Your task to perform on an android device: Search for vegetarian restaurants on Maps Image 0: 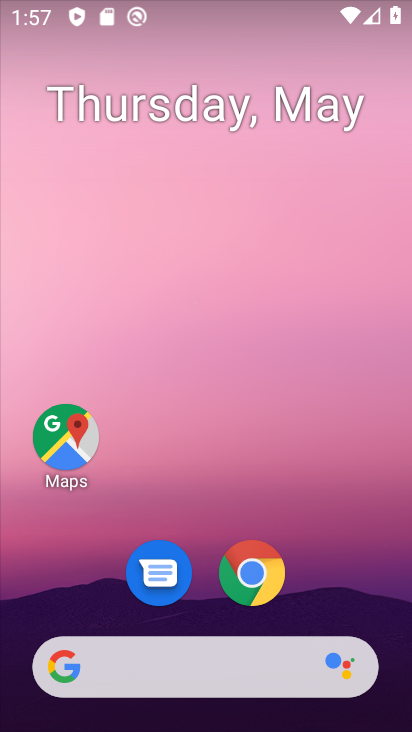
Step 0: click (63, 406)
Your task to perform on an android device: Search for vegetarian restaurants on Maps Image 1: 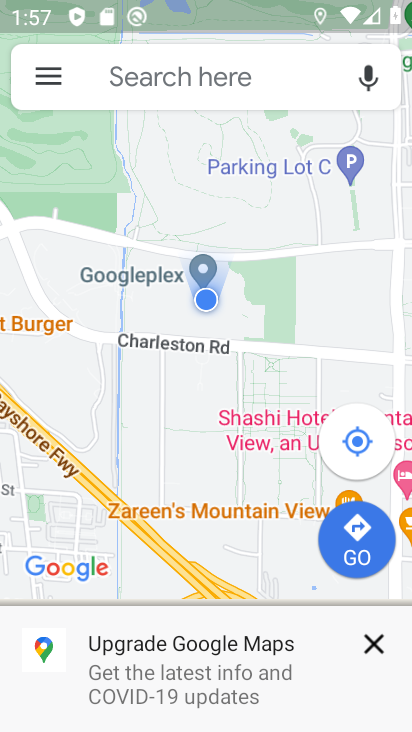
Step 1: click (157, 62)
Your task to perform on an android device: Search for vegetarian restaurants on Maps Image 2: 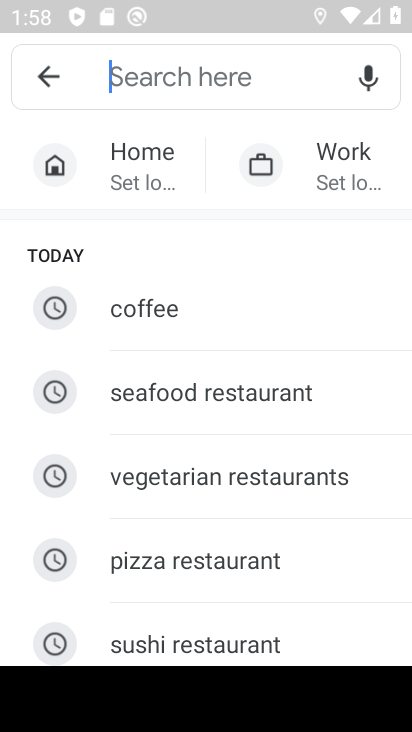
Step 2: click (301, 468)
Your task to perform on an android device: Search for vegetarian restaurants on Maps Image 3: 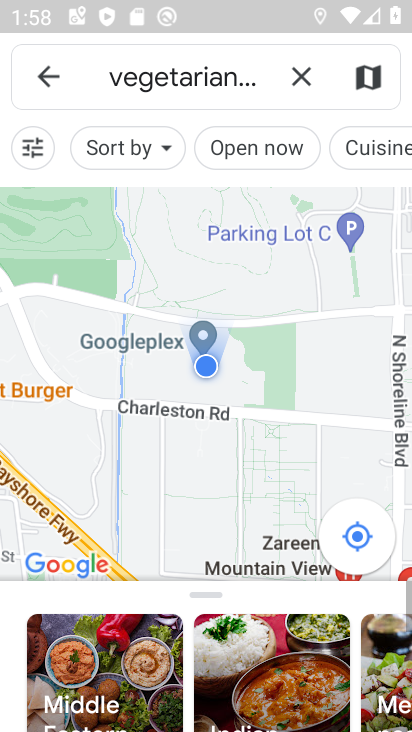
Step 3: task complete